Your task to perform on an android device: turn on notifications settings in the gmail app Image 0: 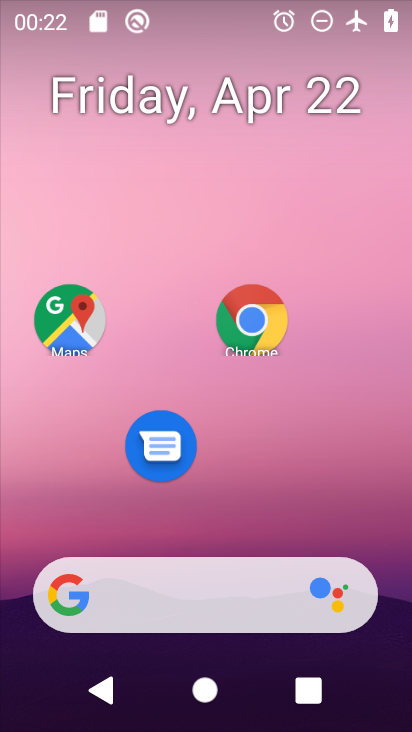
Step 0: drag from (208, 497) to (171, 139)
Your task to perform on an android device: turn on notifications settings in the gmail app Image 1: 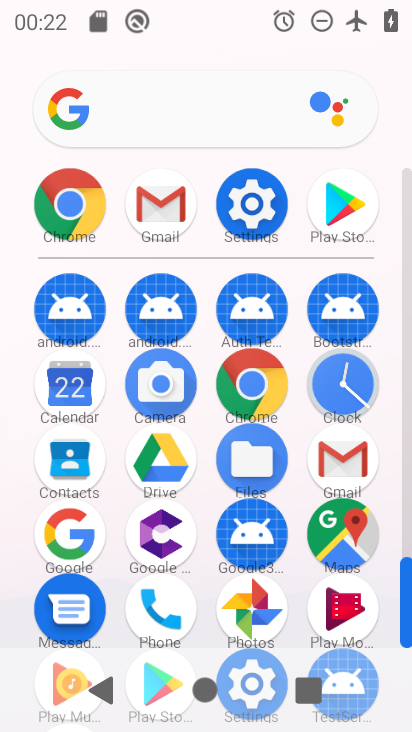
Step 1: click (338, 446)
Your task to perform on an android device: turn on notifications settings in the gmail app Image 2: 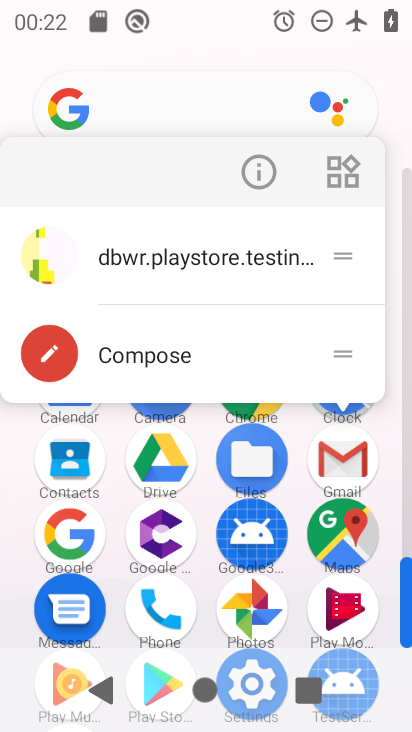
Step 2: click (250, 192)
Your task to perform on an android device: turn on notifications settings in the gmail app Image 3: 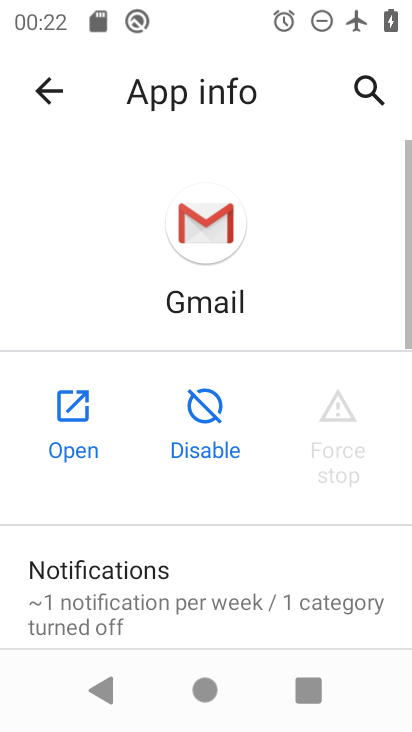
Step 3: click (69, 398)
Your task to perform on an android device: turn on notifications settings in the gmail app Image 4: 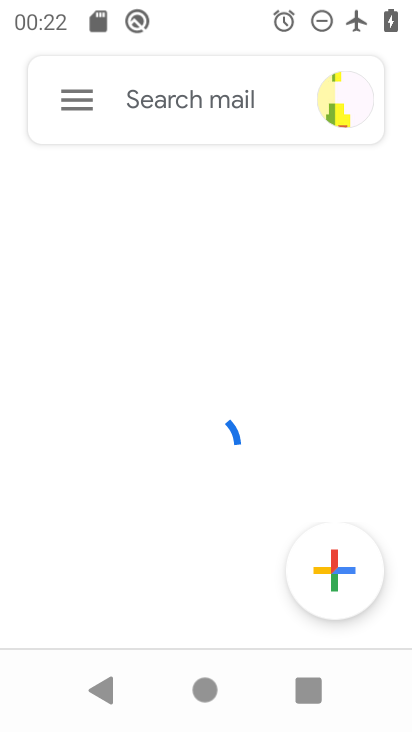
Step 4: click (71, 98)
Your task to perform on an android device: turn on notifications settings in the gmail app Image 5: 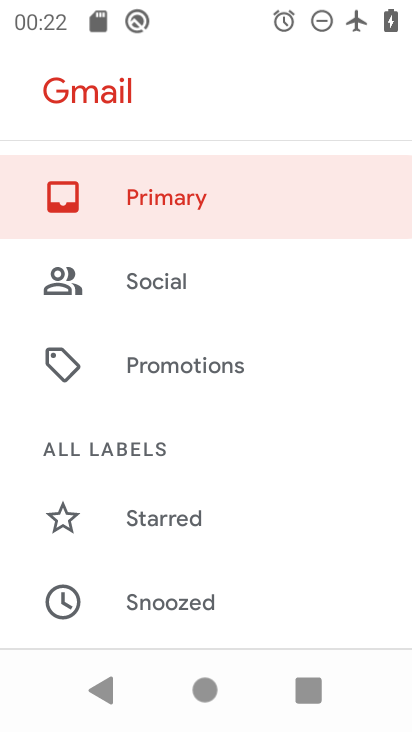
Step 5: drag from (234, 554) to (287, 118)
Your task to perform on an android device: turn on notifications settings in the gmail app Image 6: 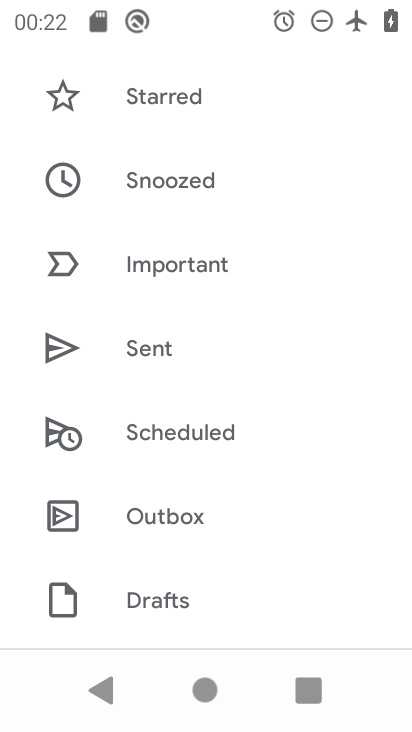
Step 6: drag from (215, 568) to (213, 319)
Your task to perform on an android device: turn on notifications settings in the gmail app Image 7: 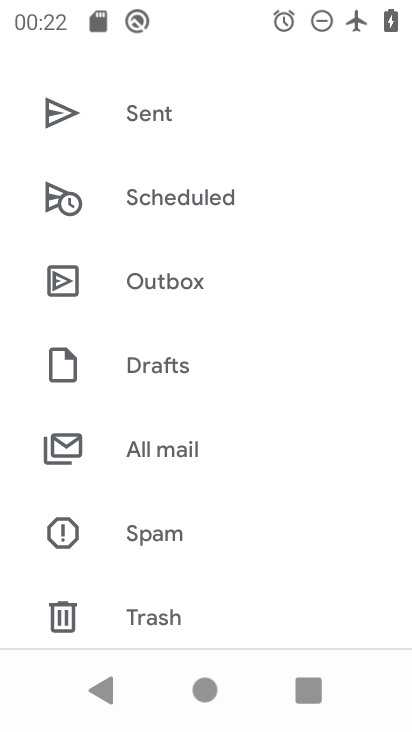
Step 7: drag from (227, 549) to (278, 152)
Your task to perform on an android device: turn on notifications settings in the gmail app Image 8: 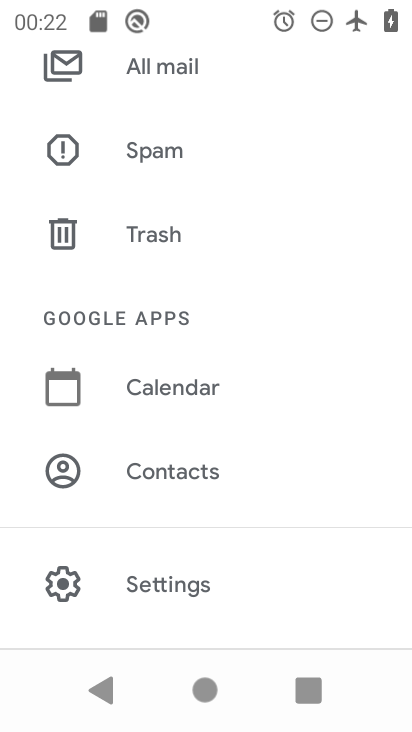
Step 8: click (202, 590)
Your task to perform on an android device: turn on notifications settings in the gmail app Image 9: 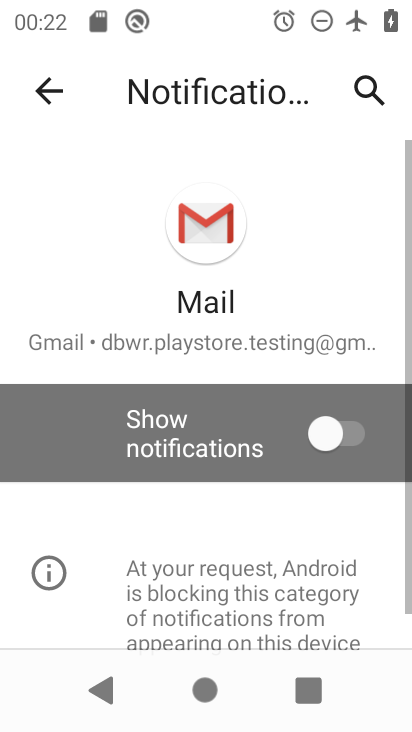
Step 9: drag from (225, 509) to (259, 258)
Your task to perform on an android device: turn on notifications settings in the gmail app Image 10: 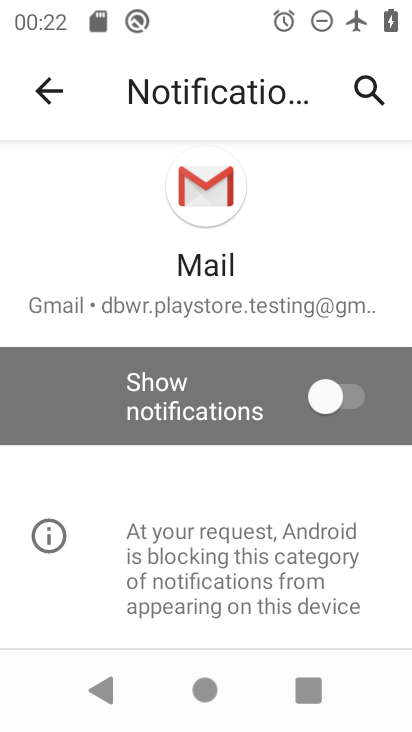
Step 10: click (281, 397)
Your task to perform on an android device: turn on notifications settings in the gmail app Image 11: 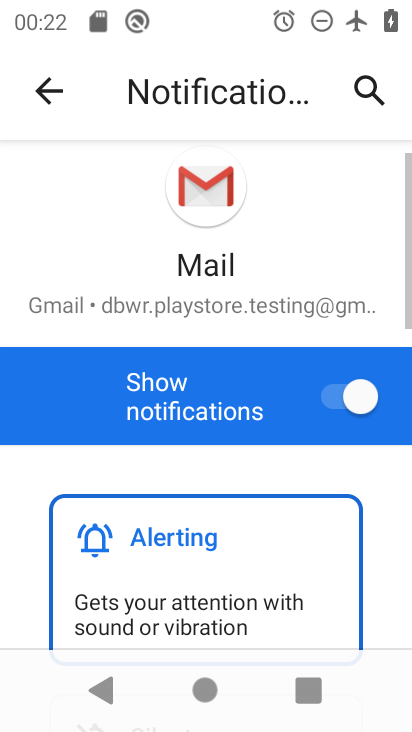
Step 11: task complete